Your task to perform on an android device: toggle improve location accuracy Image 0: 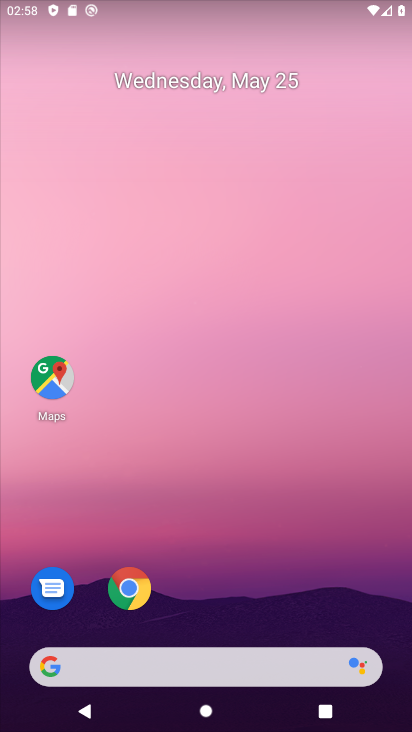
Step 0: press home button
Your task to perform on an android device: toggle improve location accuracy Image 1: 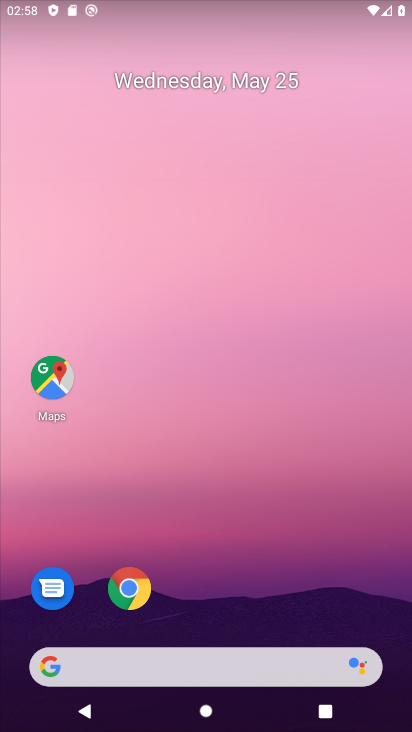
Step 1: drag from (203, 627) to (319, 69)
Your task to perform on an android device: toggle improve location accuracy Image 2: 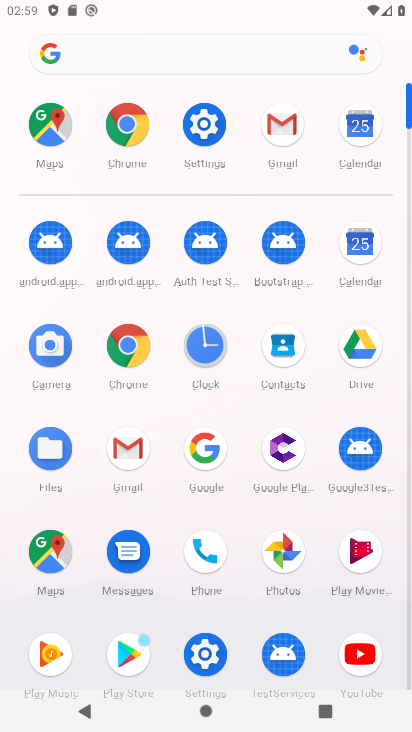
Step 2: click (211, 121)
Your task to perform on an android device: toggle improve location accuracy Image 3: 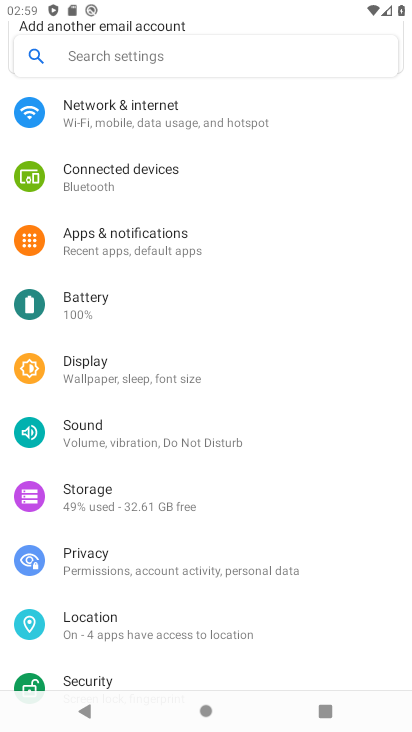
Step 3: click (141, 620)
Your task to perform on an android device: toggle improve location accuracy Image 4: 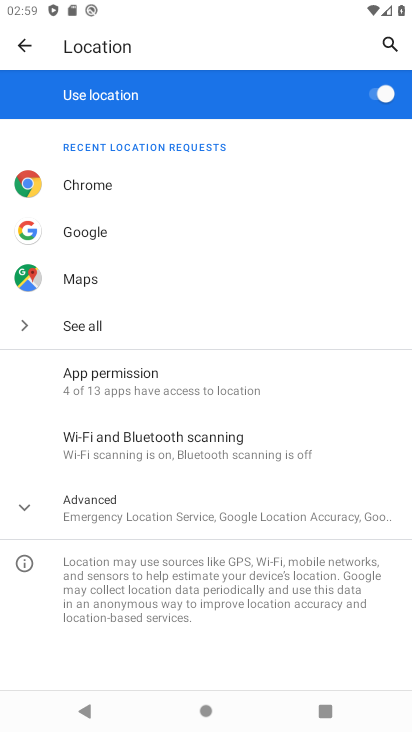
Step 4: click (178, 514)
Your task to perform on an android device: toggle improve location accuracy Image 5: 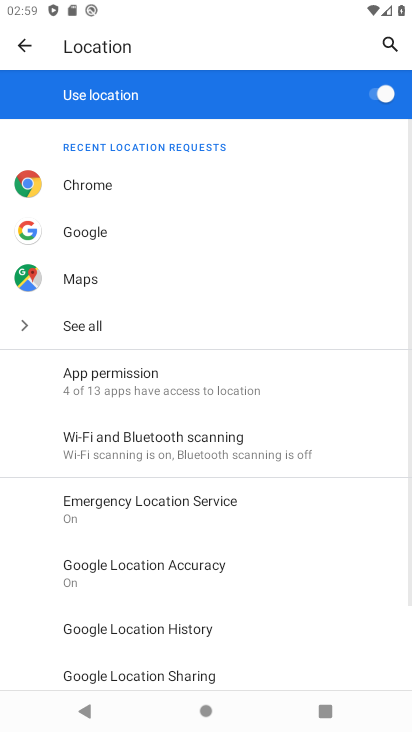
Step 5: click (158, 559)
Your task to perform on an android device: toggle improve location accuracy Image 6: 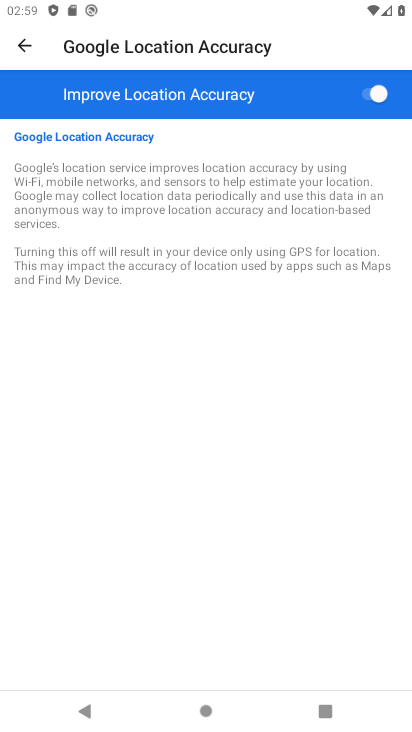
Step 6: click (339, 95)
Your task to perform on an android device: toggle improve location accuracy Image 7: 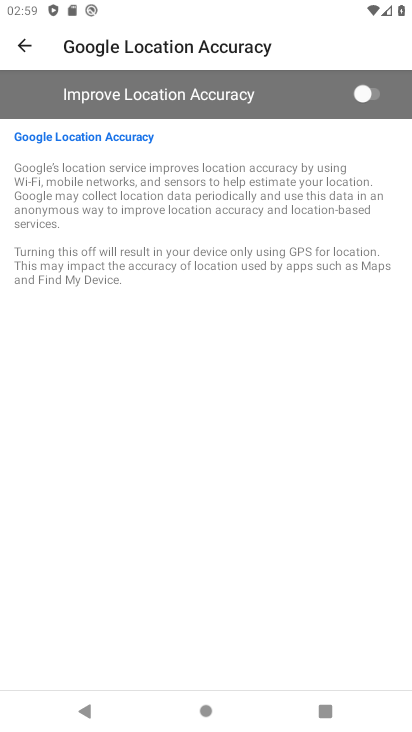
Step 7: task complete